Your task to perform on an android device: turn on location history Image 0: 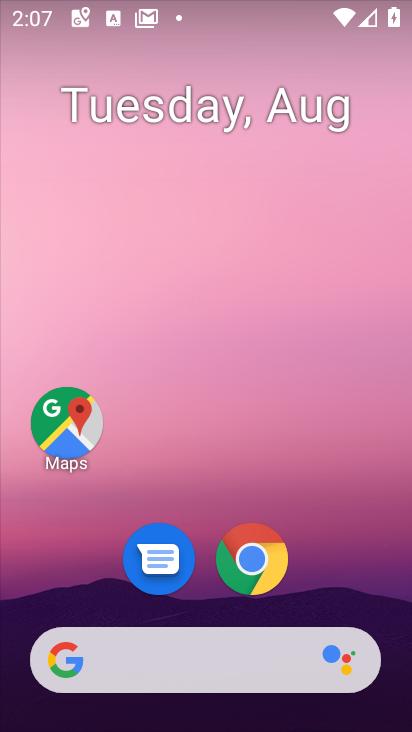
Step 0: drag from (202, 510) to (200, 191)
Your task to perform on an android device: turn on location history Image 1: 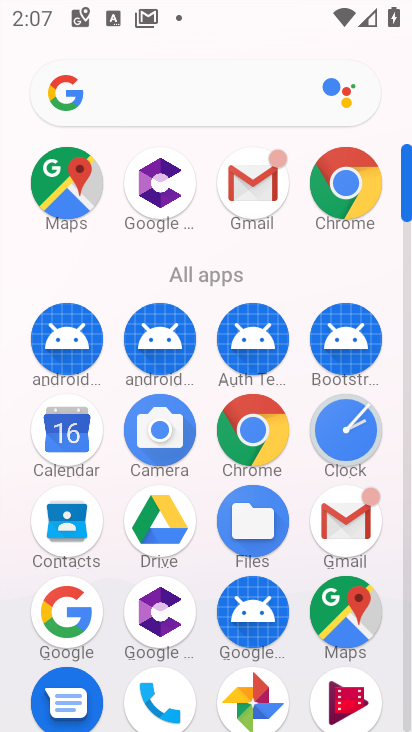
Step 1: drag from (210, 553) to (214, 203)
Your task to perform on an android device: turn on location history Image 2: 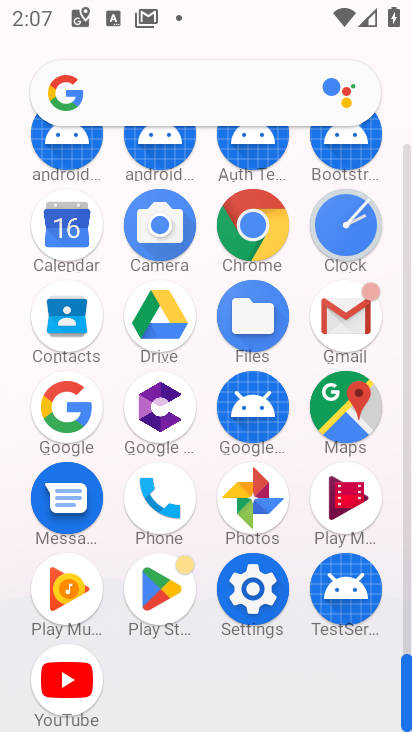
Step 2: click (264, 595)
Your task to perform on an android device: turn on location history Image 3: 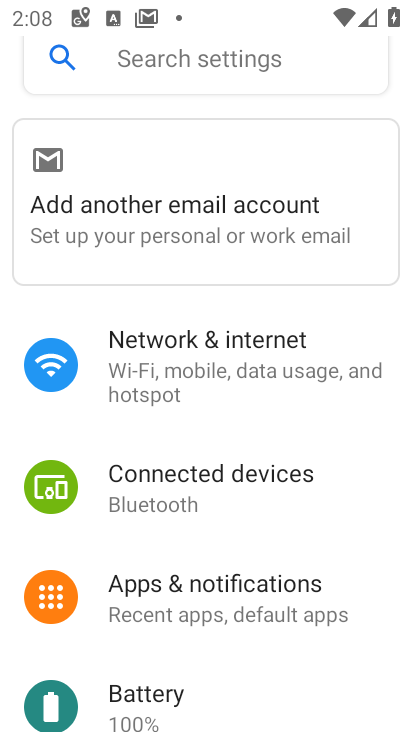
Step 3: drag from (255, 629) to (237, 192)
Your task to perform on an android device: turn on location history Image 4: 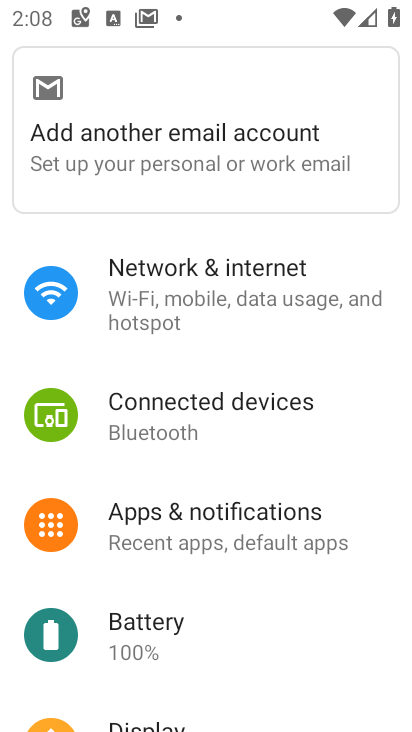
Step 4: drag from (243, 492) to (243, 207)
Your task to perform on an android device: turn on location history Image 5: 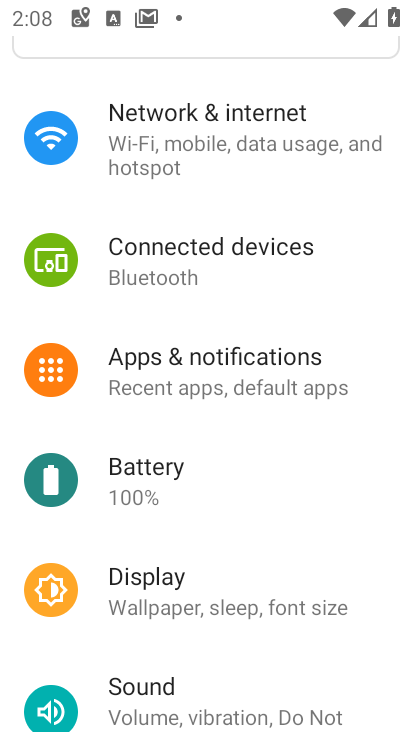
Step 5: drag from (229, 620) to (234, 268)
Your task to perform on an android device: turn on location history Image 6: 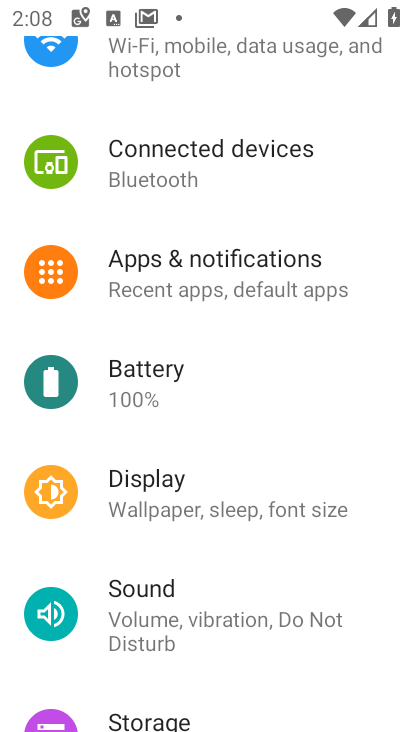
Step 6: drag from (227, 647) to (273, 303)
Your task to perform on an android device: turn on location history Image 7: 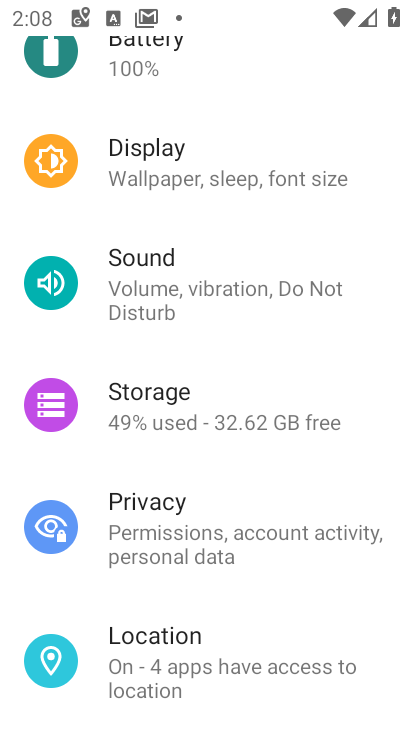
Step 7: click (215, 667)
Your task to perform on an android device: turn on location history Image 8: 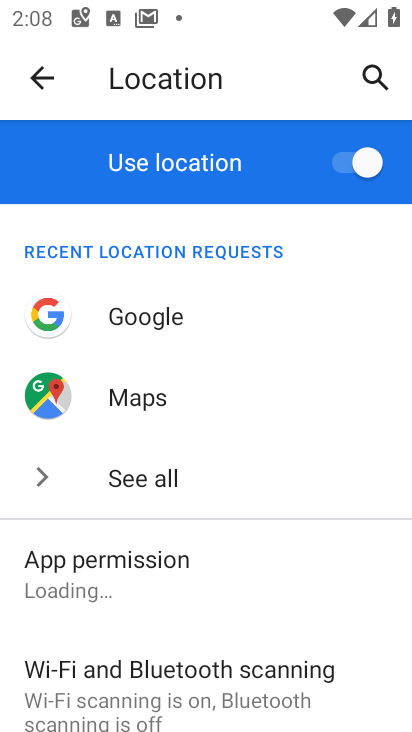
Step 8: drag from (227, 596) to (235, 203)
Your task to perform on an android device: turn on location history Image 9: 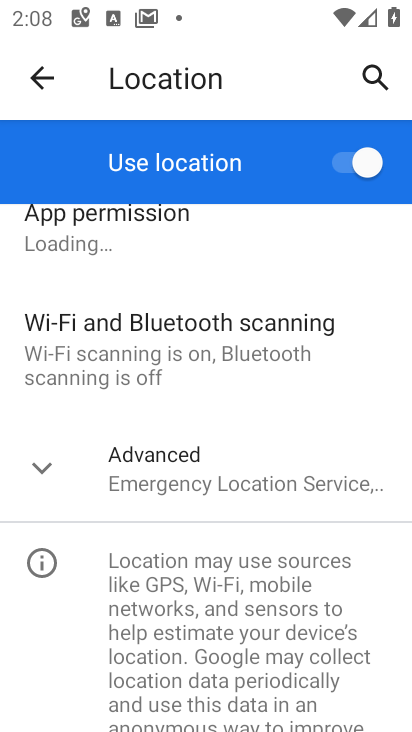
Step 9: click (193, 475)
Your task to perform on an android device: turn on location history Image 10: 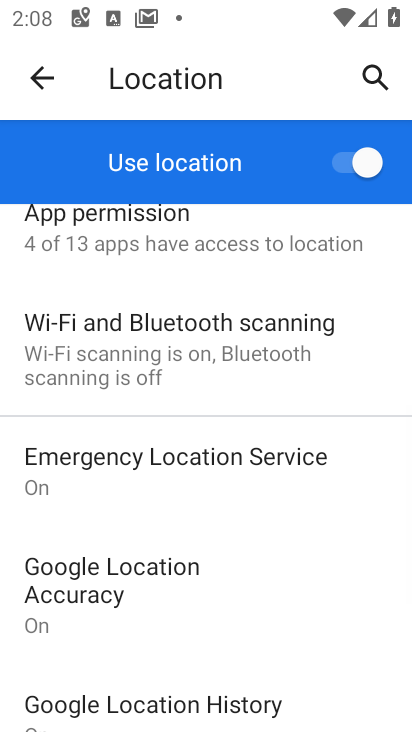
Step 10: click (197, 691)
Your task to perform on an android device: turn on location history Image 11: 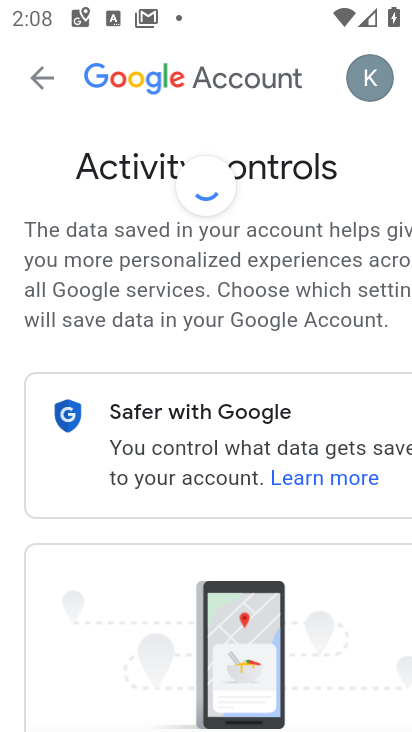
Step 11: task complete